Your task to perform on an android device: Open Yahoo.com Image 0: 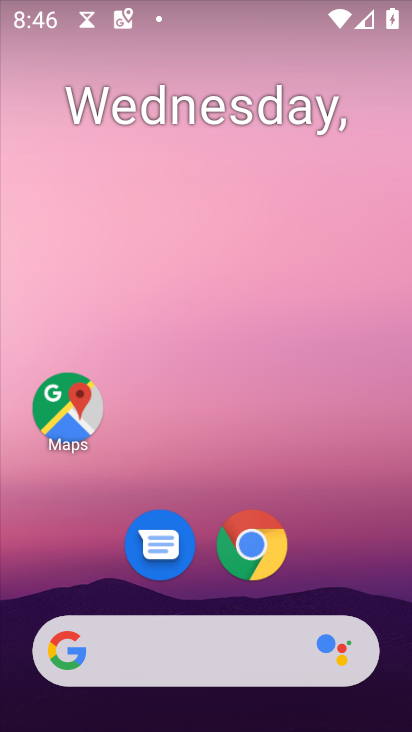
Step 0: drag from (153, 657) to (379, 38)
Your task to perform on an android device: Open Yahoo.com Image 1: 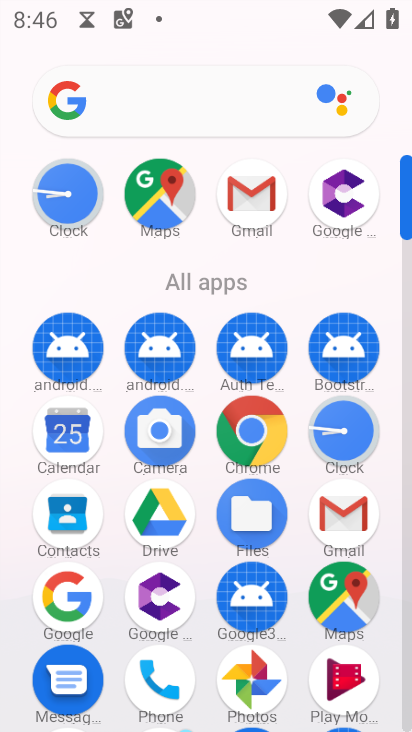
Step 1: click (254, 436)
Your task to perform on an android device: Open Yahoo.com Image 2: 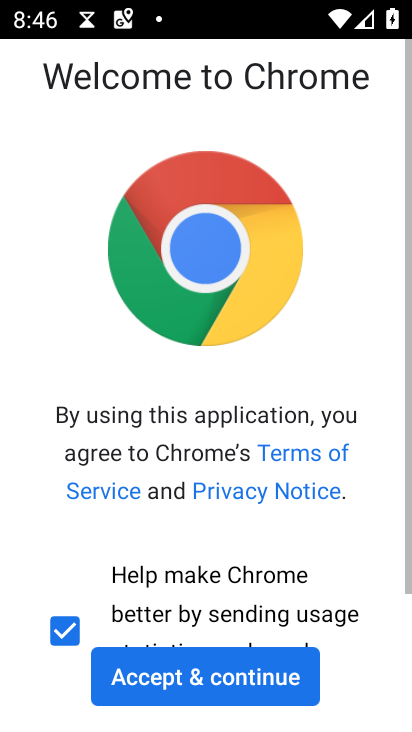
Step 2: click (193, 676)
Your task to perform on an android device: Open Yahoo.com Image 3: 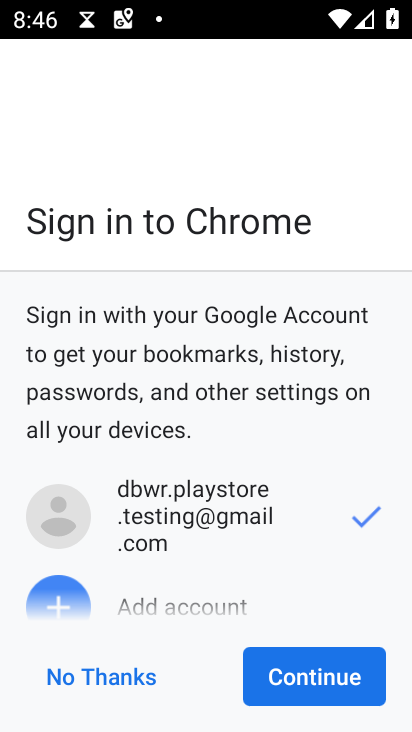
Step 3: click (327, 674)
Your task to perform on an android device: Open Yahoo.com Image 4: 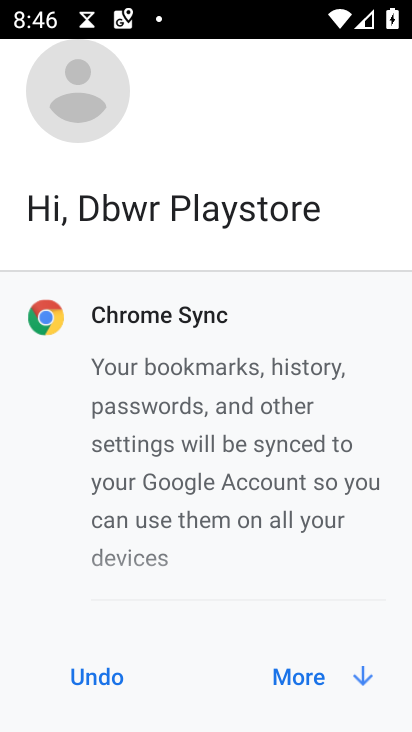
Step 4: click (311, 683)
Your task to perform on an android device: Open Yahoo.com Image 5: 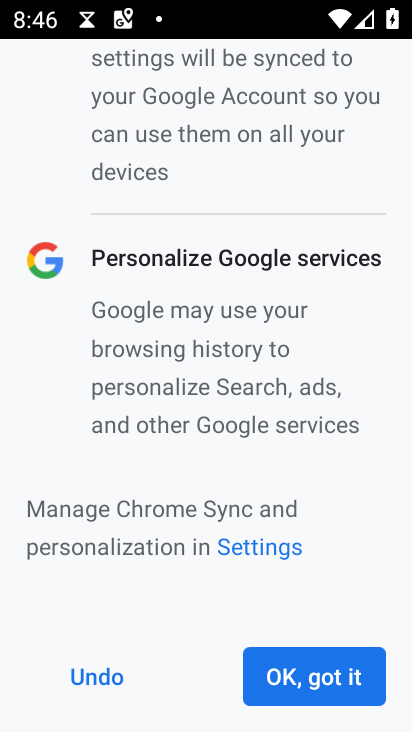
Step 5: click (283, 689)
Your task to perform on an android device: Open Yahoo.com Image 6: 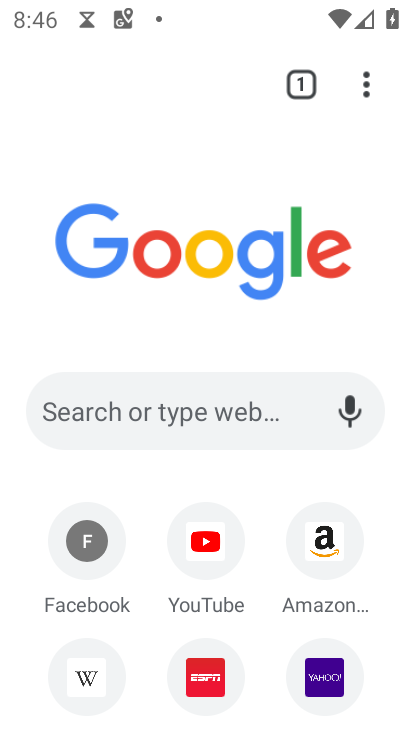
Step 6: click (325, 679)
Your task to perform on an android device: Open Yahoo.com Image 7: 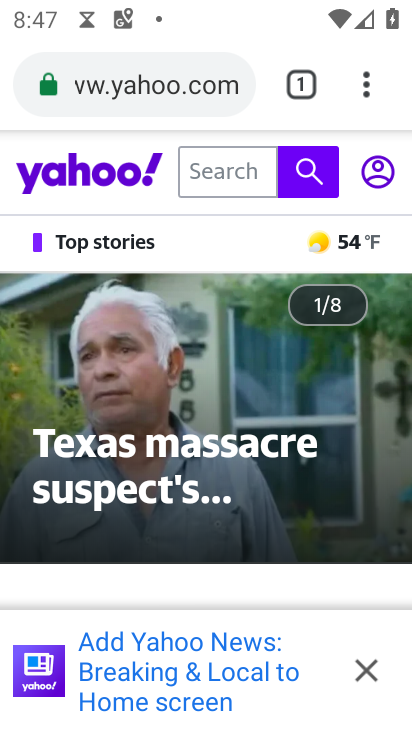
Step 7: task complete